Your task to perform on an android device: empty trash in the gmail app Image 0: 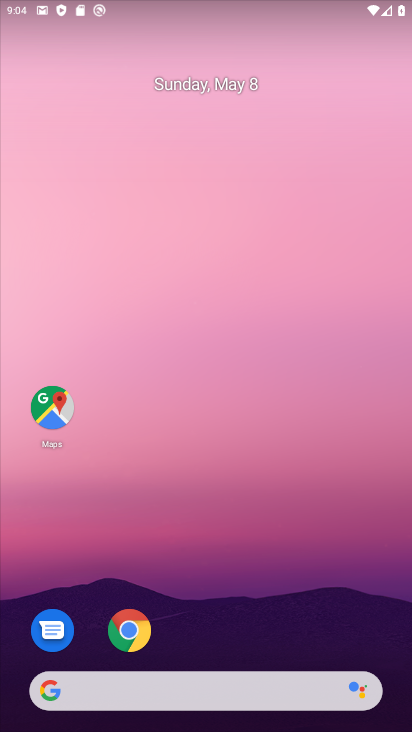
Step 0: drag from (213, 688) to (325, 114)
Your task to perform on an android device: empty trash in the gmail app Image 1: 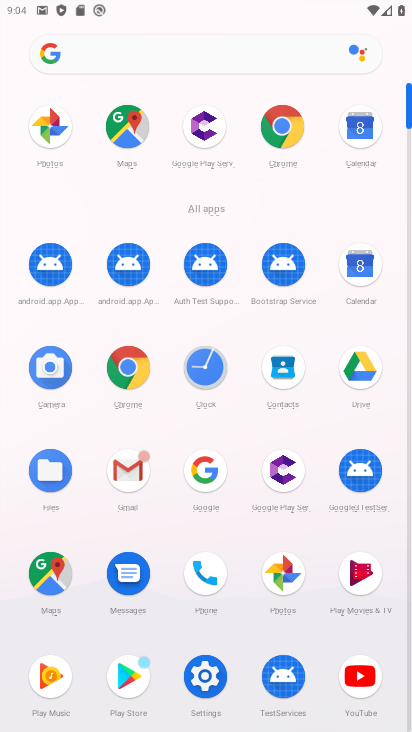
Step 1: click (131, 476)
Your task to perform on an android device: empty trash in the gmail app Image 2: 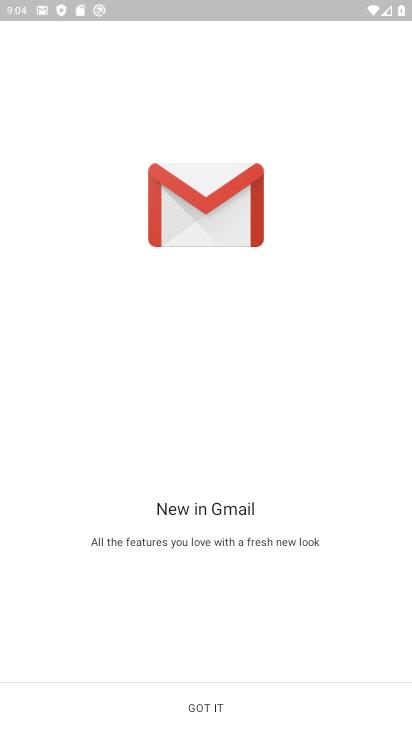
Step 2: click (197, 707)
Your task to perform on an android device: empty trash in the gmail app Image 3: 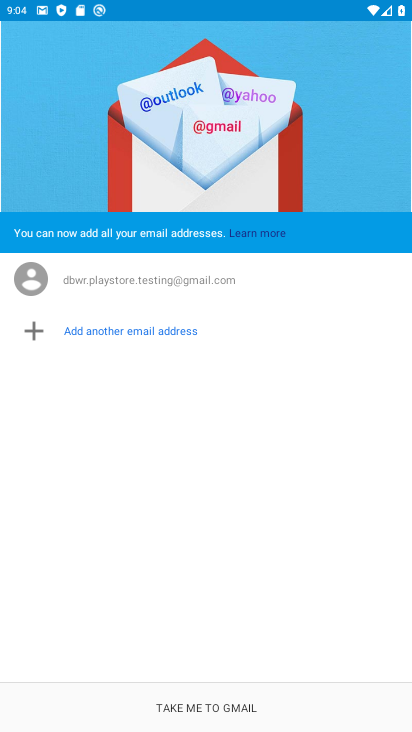
Step 3: click (197, 707)
Your task to perform on an android device: empty trash in the gmail app Image 4: 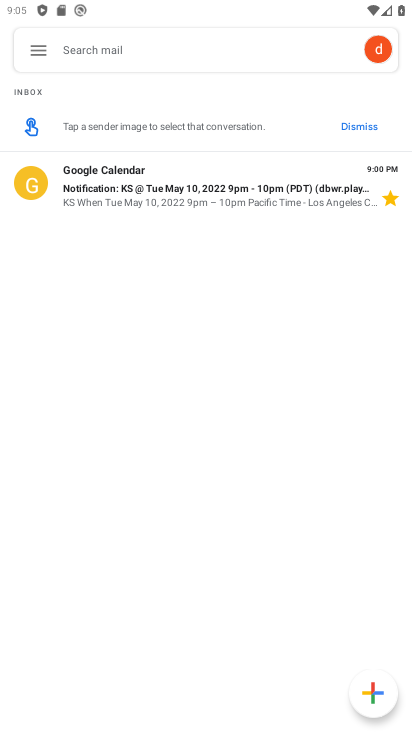
Step 4: click (36, 54)
Your task to perform on an android device: empty trash in the gmail app Image 5: 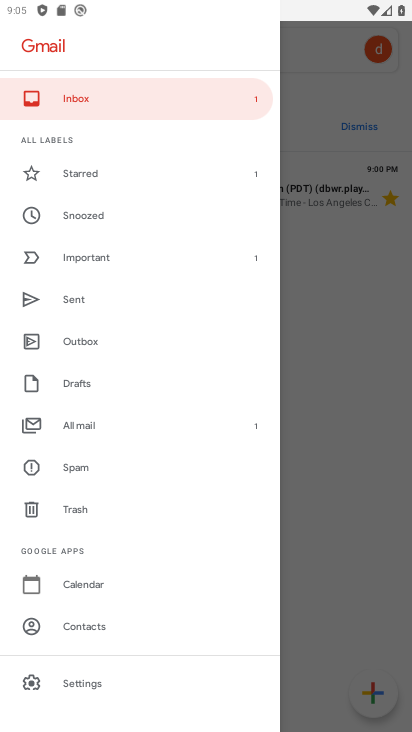
Step 5: click (82, 508)
Your task to perform on an android device: empty trash in the gmail app Image 6: 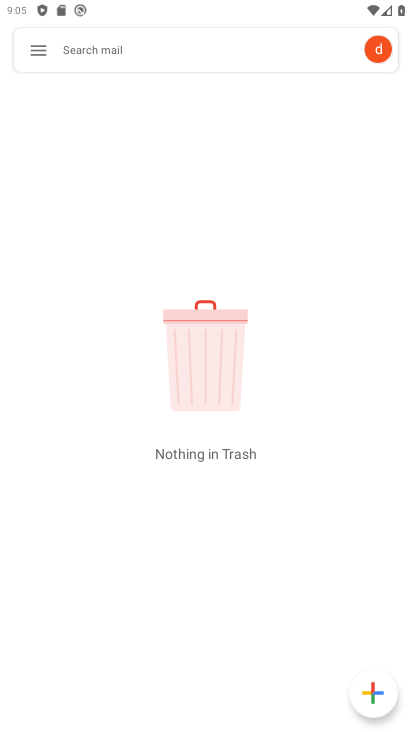
Step 6: task complete